Your task to perform on an android device: show emergency info Image 0: 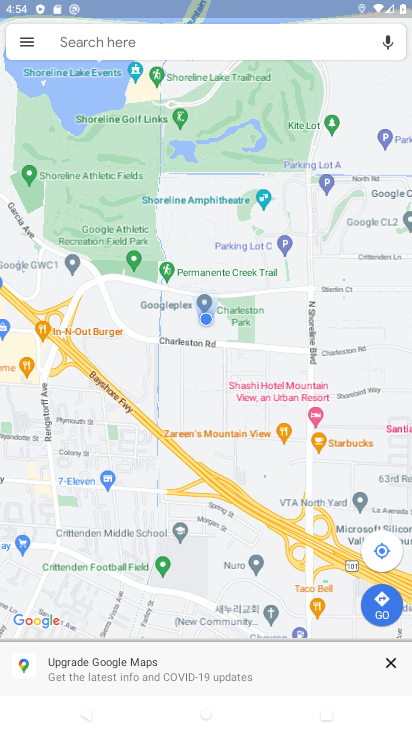
Step 0: press home button
Your task to perform on an android device: show emergency info Image 1: 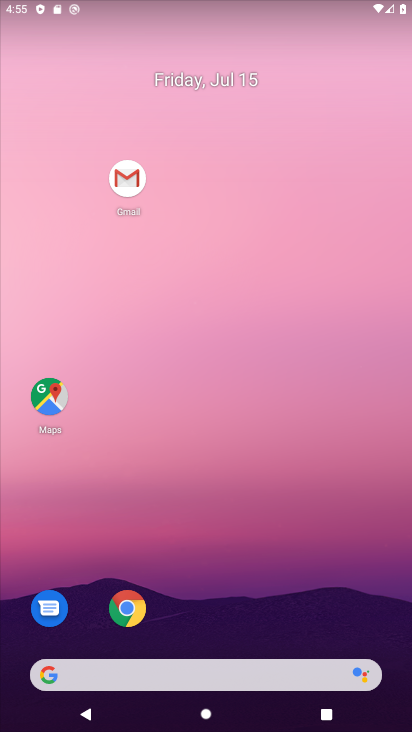
Step 1: drag from (281, 514) to (232, 8)
Your task to perform on an android device: show emergency info Image 2: 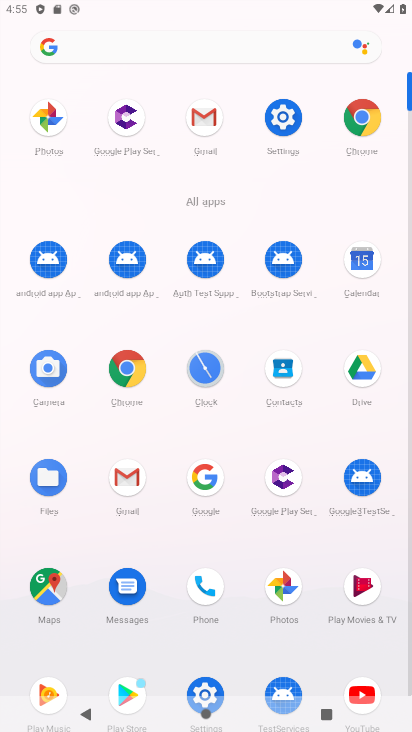
Step 2: click (282, 124)
Your task to perform on an android device: show emergency info Image 3: 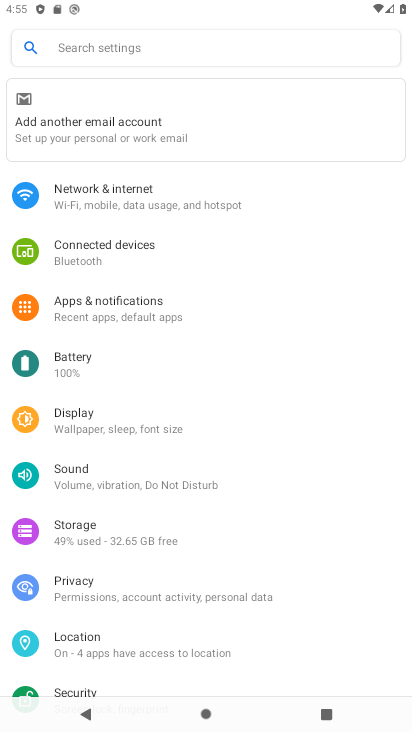
Step 3: drag from (191, 507) to (241, 121)
Your task to perform on an android device: show emergency info Image 4: 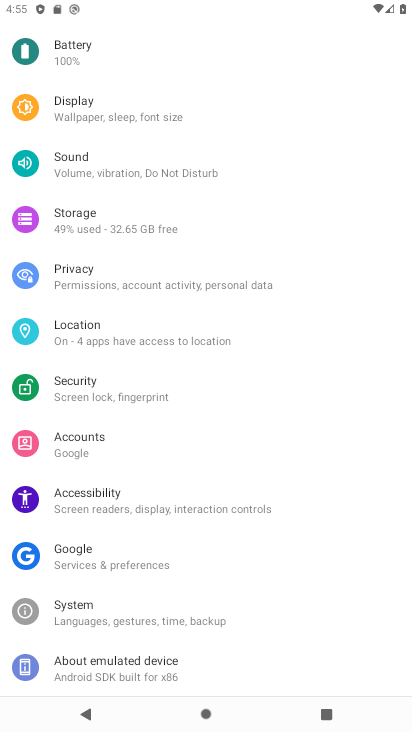
Step 4: click (201, 664)
Your task to perform on an android device: show emergency info Image 5: 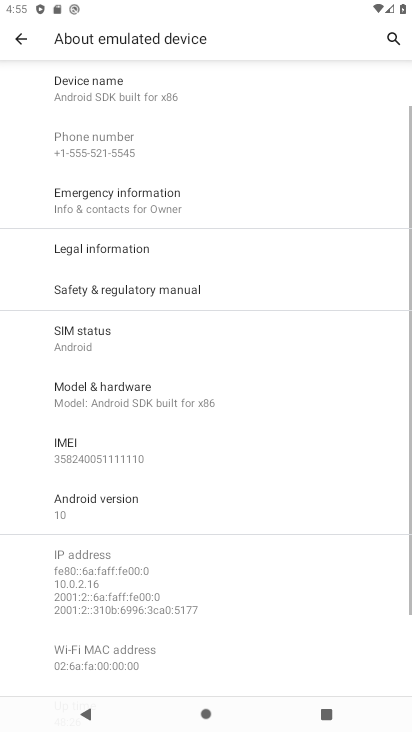
Step 5: click (162, 199)
Your task to perform on an android device: show emergency info Image 6: 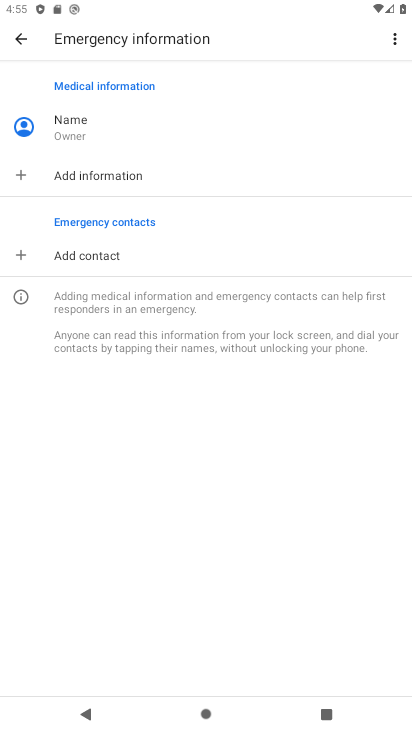
Step 6: task complete